Your task to perform on an android device: What's the weather today? Image 0: 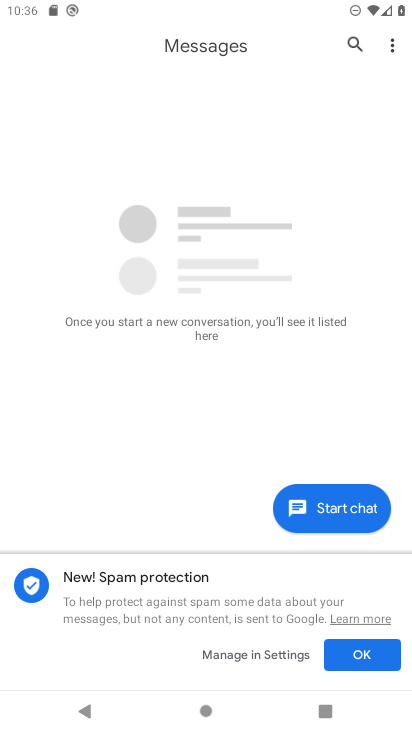
Step 0: press home button
Your task to perform on an android device: What's the weather today? Image 1: 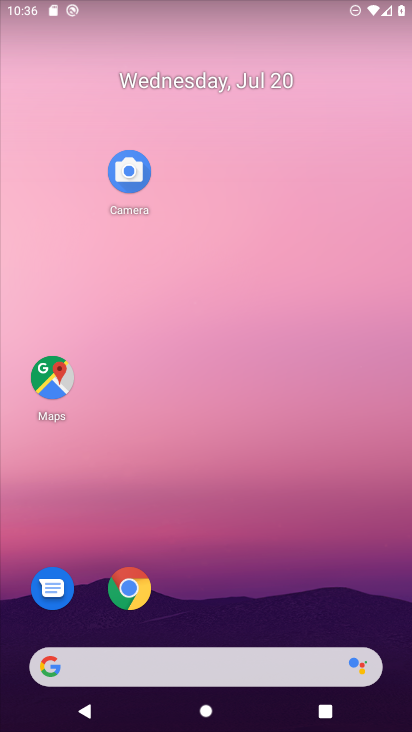
Step 1: click (54, 675)
Your task to perform on an android device: What's the weather today? Image 2: 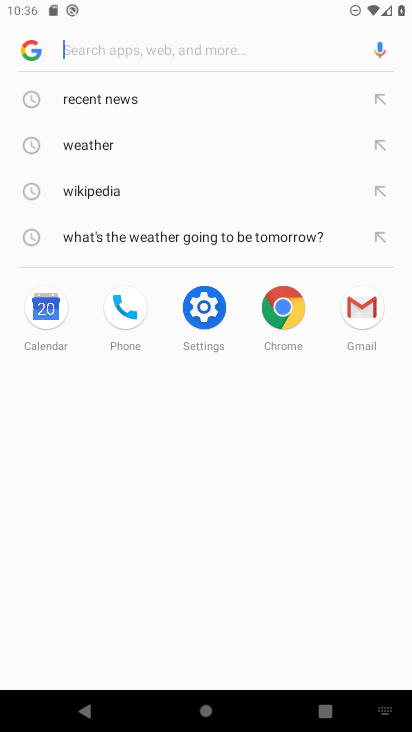
Step 2: type "weather today"
Your task to perform on an android device: What's the weather today? Image 3: 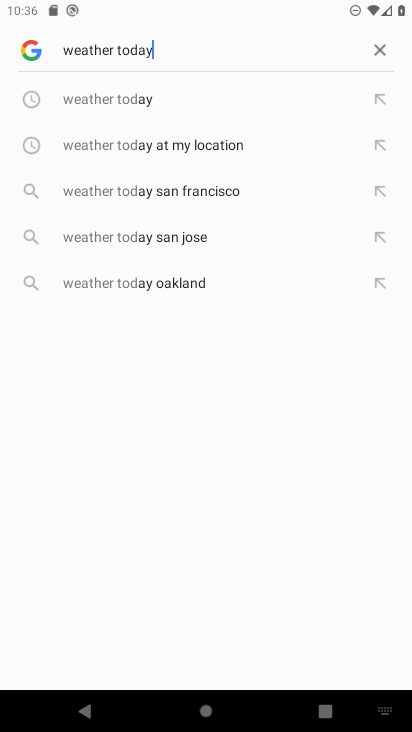
Step 3: press enter
Your task to perform on an android device: What's the weather today? Image 4: 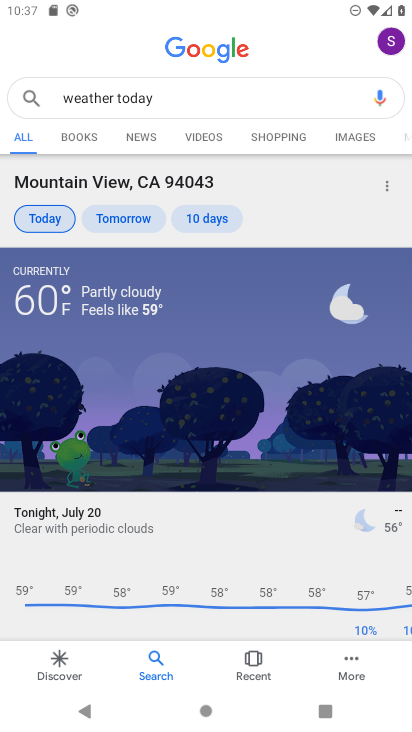
Step 4: task complete